Your task to perform on an android device: Is it going to rain tomorrow? Image 0: 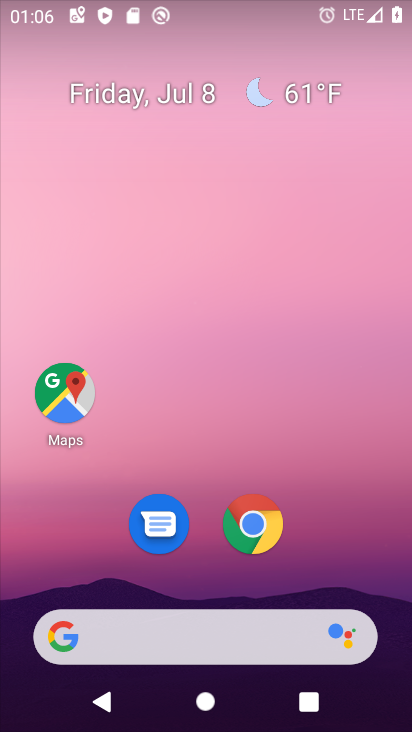
Step 0: click (257, 92)
Your task to perform on an android device: Is it going to rain tomorrow? Image 1: 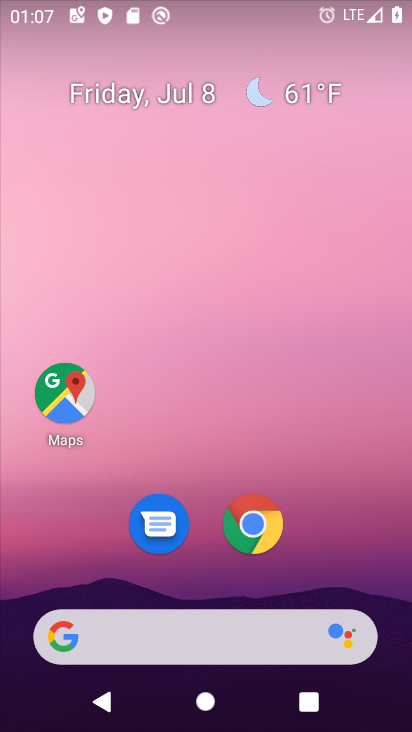
Step 1: click (273, 92)
Your task to perform on an android device: Is it going to rain tomorrow? Image 2: 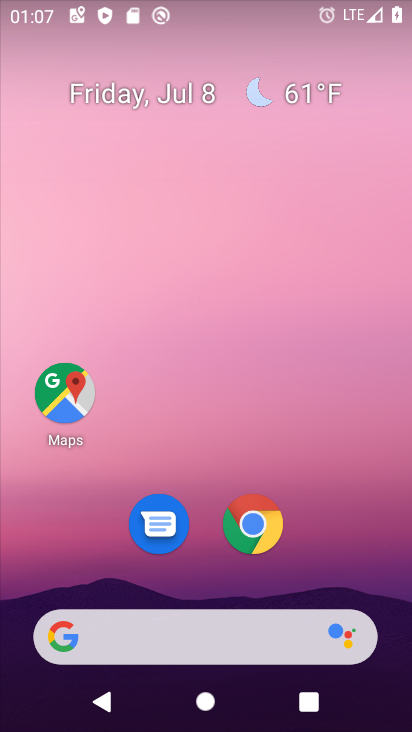
Step 2: click (290, 90)
Your task to perform on an android device: Is it going to rain tomorrow? Image 3: 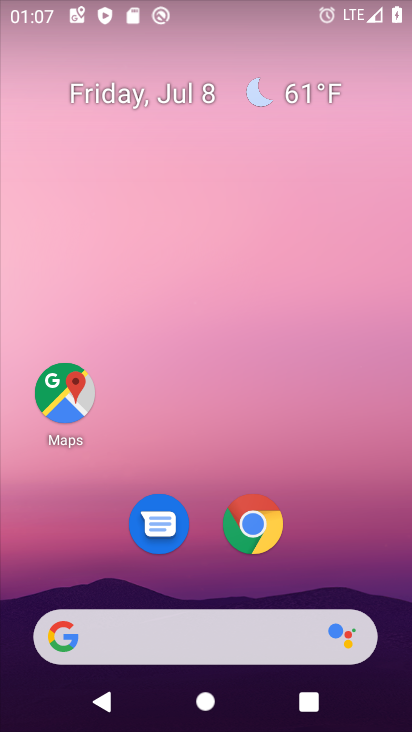
Step 3: click (271, 82)
Your task to perform on an android device: Is it going to rain tomorrow? Image 4: 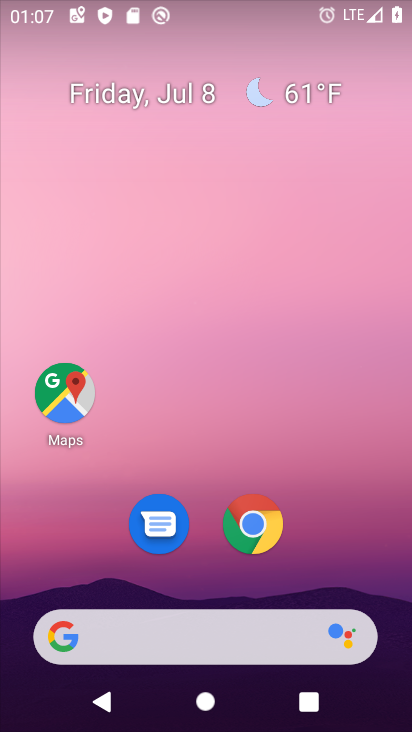
Step 4: click (263, 98)
Your task to perform on an android device: Is it going to rain tomorrow? Image 5: 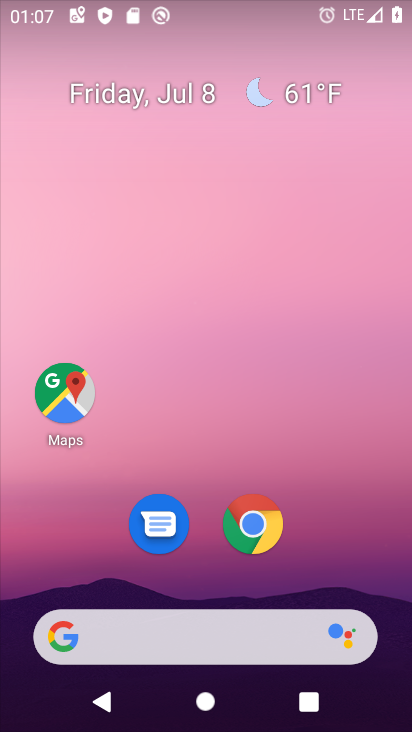
Step 5: click (283, 82)
Your task to perform on an android device: Is it going to rain tomorrow? Image 6: 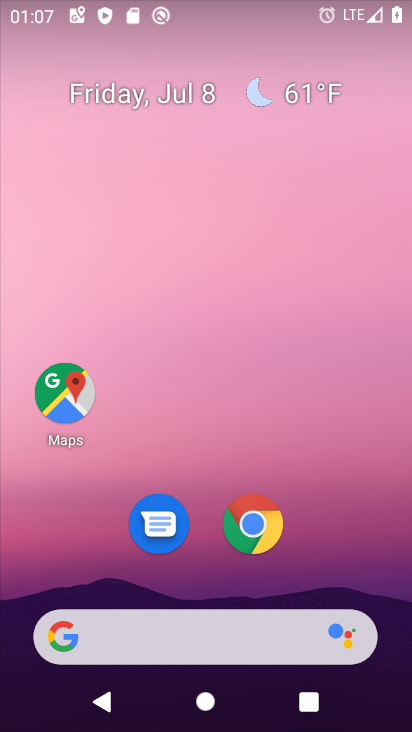
Step 6: click (207, 641)
Your task to perform on an android device: Is it going to rain tomorrow? Image 7: 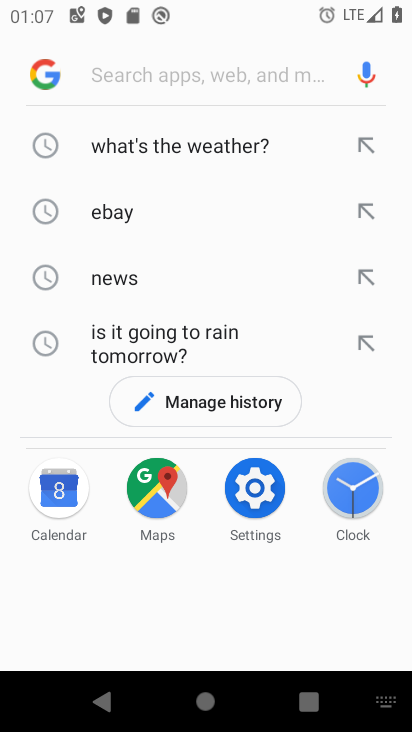
Step 7: type "Weather"
Your task to perform on an android device: Is it going to rain tomorrow? Image 8: 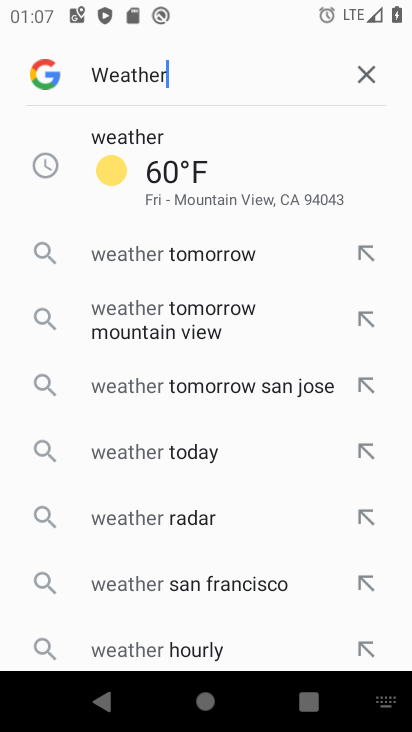
Step 8: click (201, 186)
Your task to perform on an android device: Is it going to rain tomorrow? Image 9: 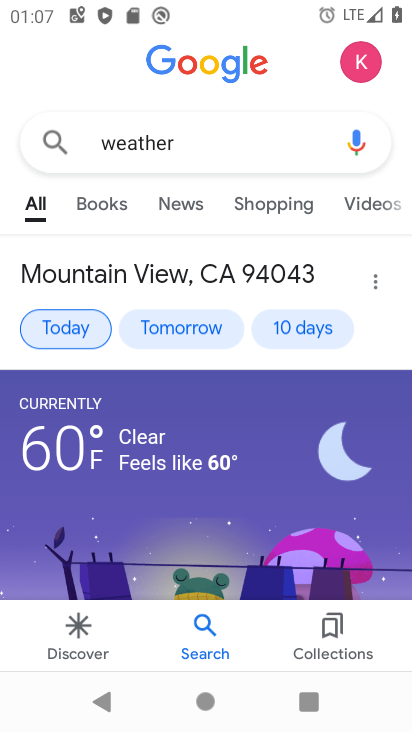
Step 9: click (86, 326)
Your task to perform on an android device: Is it going to rain tomorrow? Image 10: 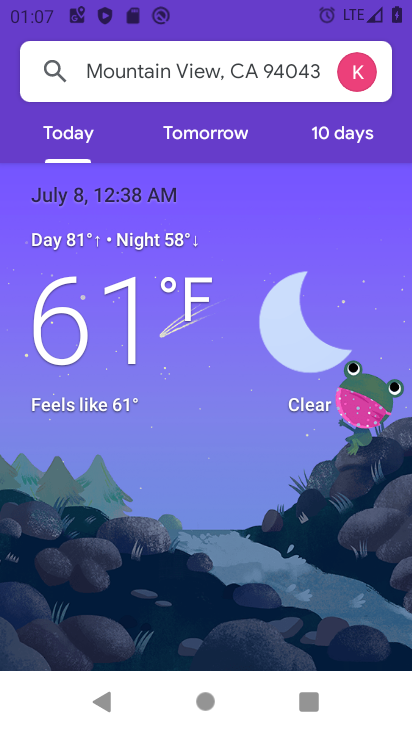
Step 10: drag from (199, 579) to (272, 174)
Your task to perform on an android device: Is it going to rain tomorrow? Image 11: 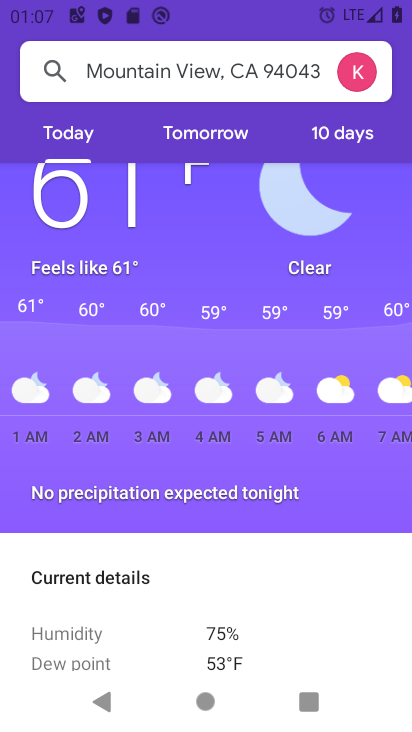
Step 11: drag from (249, 468) to (264, 211)
Your task to perform on an android device: Is it going to rain tomorrow? Image 12: 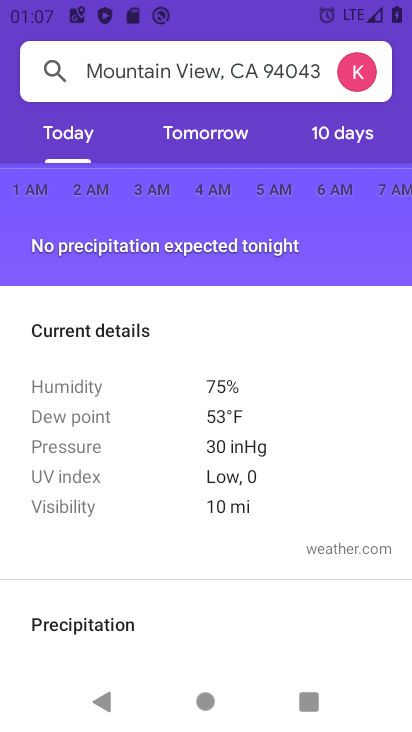
Step 12: click (220, 135)
Your task to perform on an android device: Is it going to rain tomorrow? Image 13: 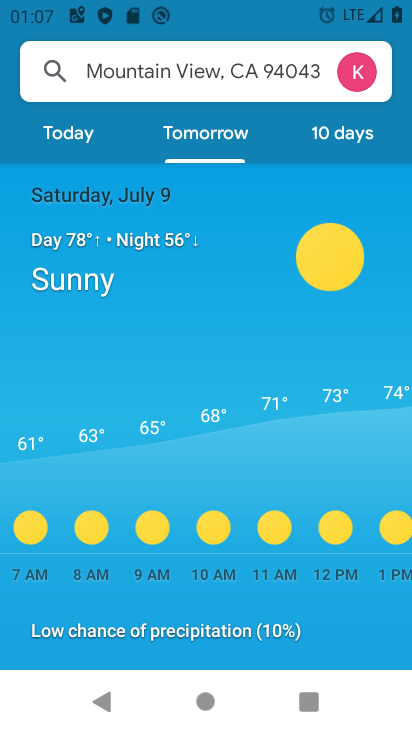
Step 13: task complete